Your task to perform on an android device: open wifi settings Image 0: 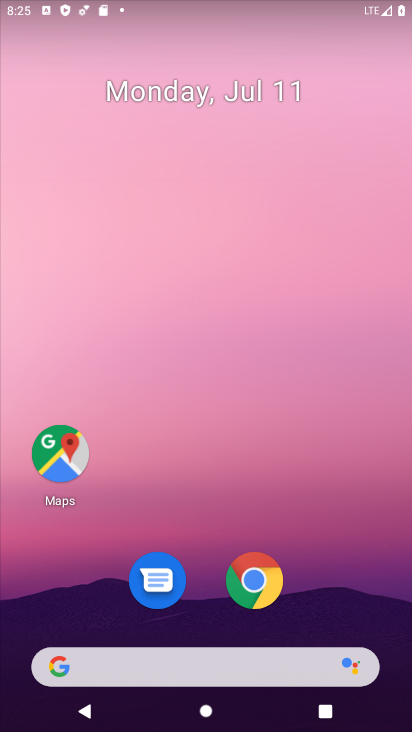
Step 0: drag from (300, 547) to (284, 13)
Your task to perform on an android device: open wifi settings Image 1: 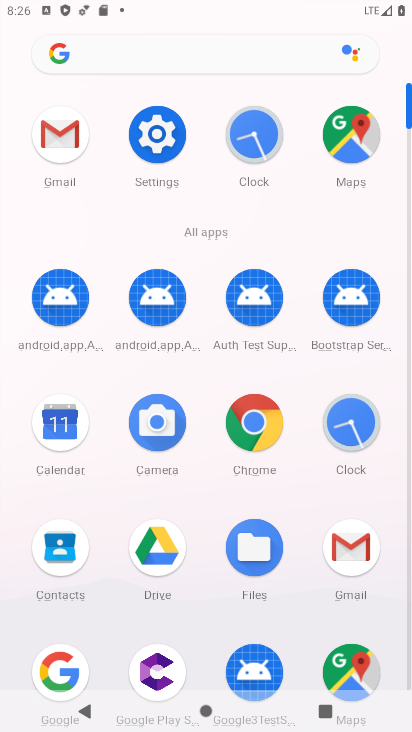
Step 1: click (157, 124)
Your task to perform on an android device: open wifi settings Image 2: 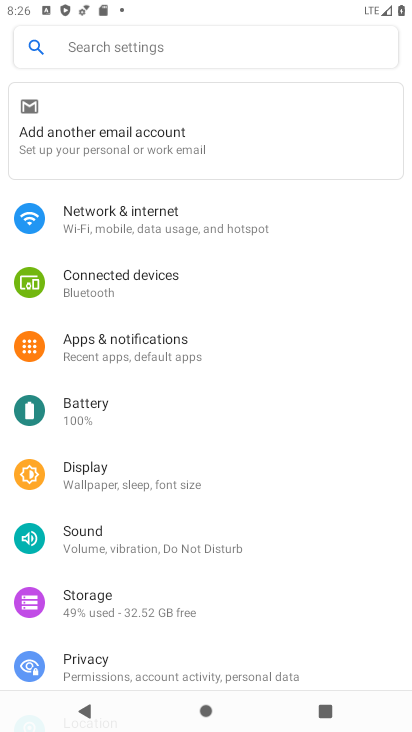
Step 2: click (143, 228)
Your task to perform on an android device: open wifi settings Image 3: 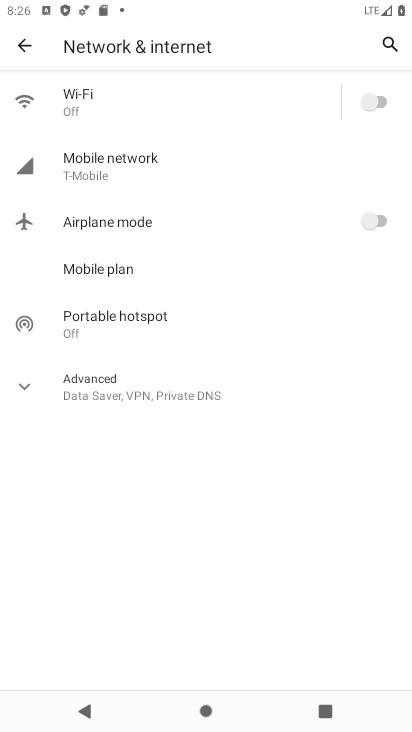
Step 3: click (86, 106)
Your task to perform on an android device: open wifi settings Image 4: 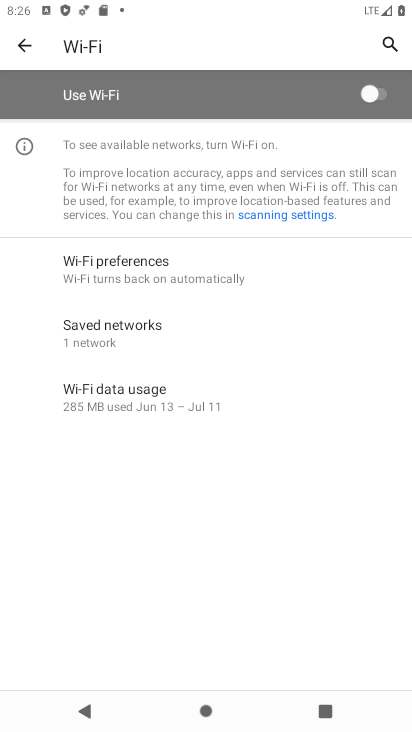
Step 4: task complete